Your task to perform on an android device: Search for sushi restaurants on Maps Image 0: 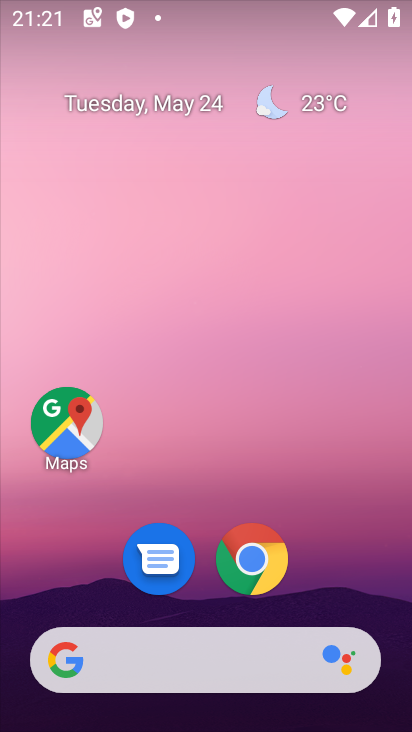
Step 0: click (81, 426)
Your task to perform on an android device: Search for sushi restaurants on Maps Image 1: 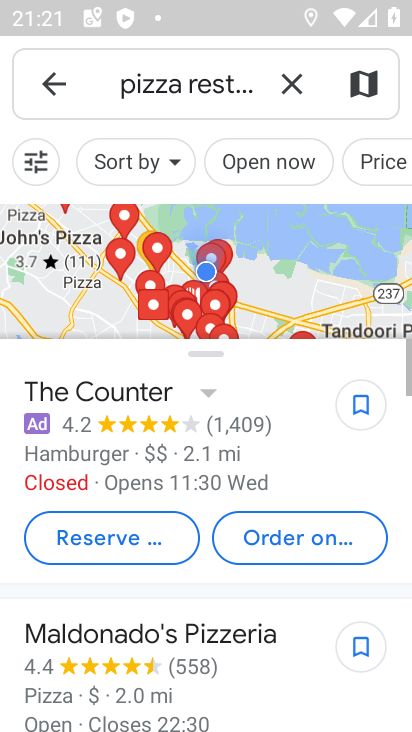
Step 1: click (242, 107)
Your task to perform on an android device: Search for sushi restaurants on Maps Image 2: 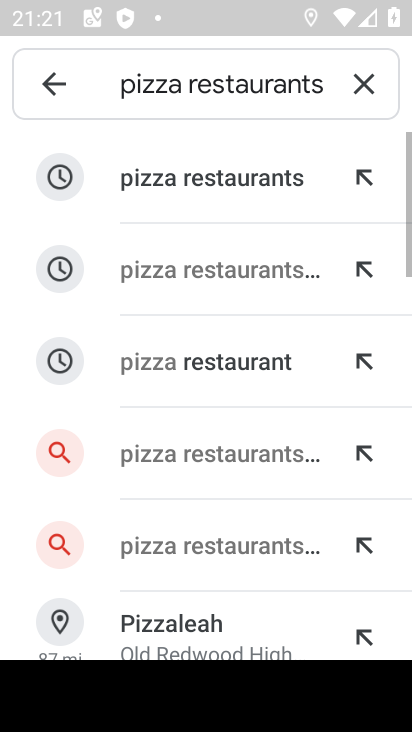
Step 2: click (360, 87)
Your task to perform on an android device: Search for sushi restaurants on Maps Image 3: 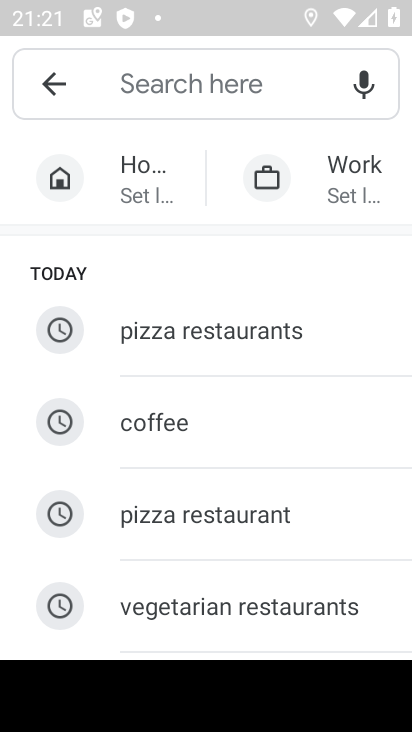
Step 3: type "sushi restaurants"
Your task to perform on an android device: Search for sushi restaurants on Maps Image 4: 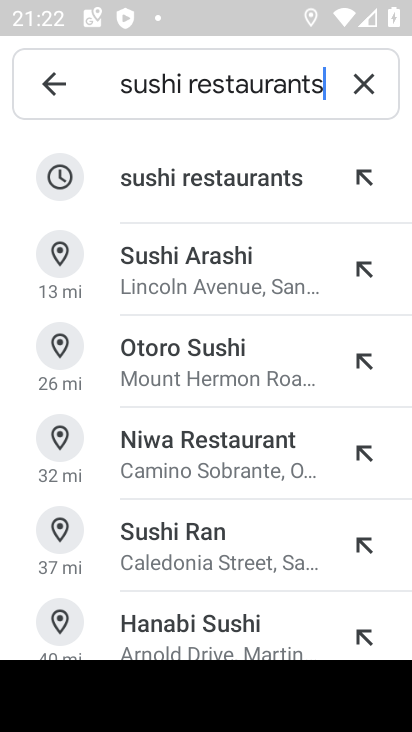
Step 4: click (267, 178)
Your task to perform on an android device: Search for sushi restaurants on Maps Image 5: 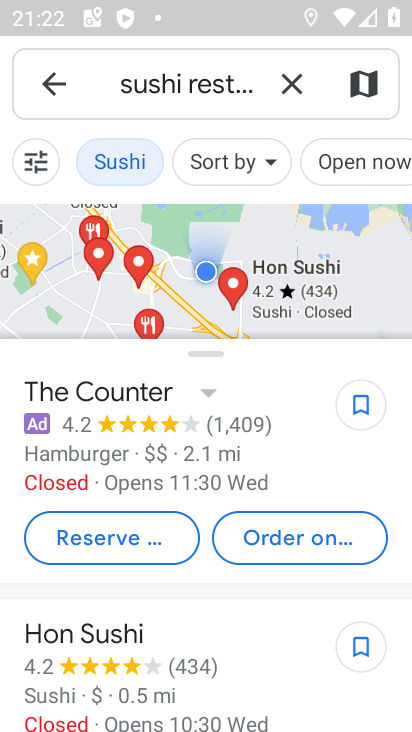
Step 5: task complete